Your task to perform on an android device: Go to Google Image 0: 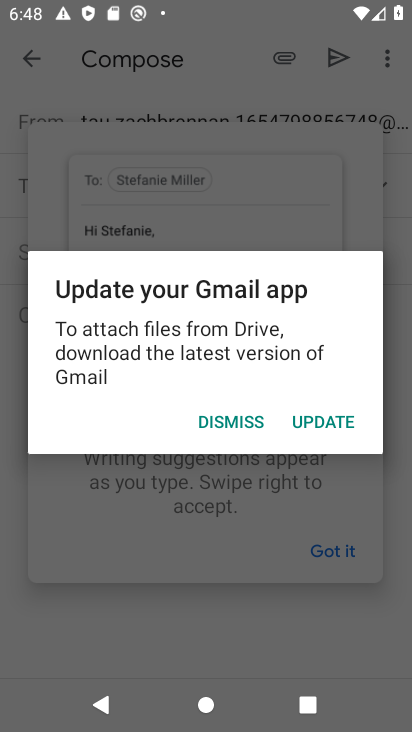
Step 0: press home button
Your task to perform on an android device: Go to Google Image 1: 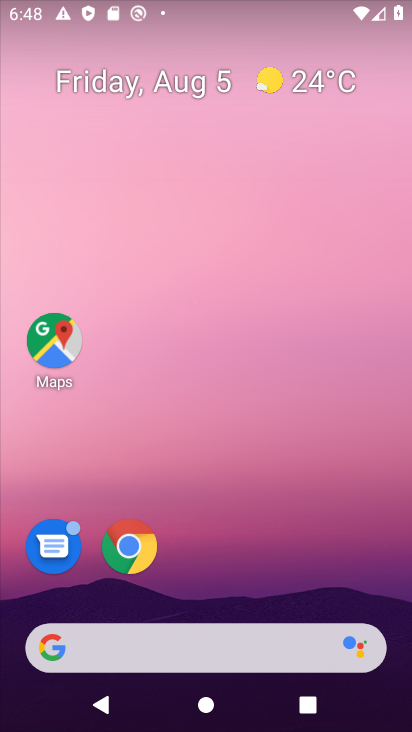
Step 1: drag from (173, 618) to (198, 269)
Your task to perform on an android device: Go to Google Image 2: 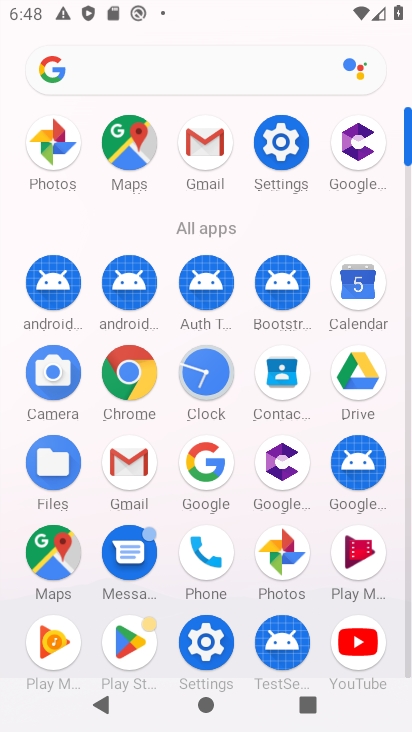
Step 2: click (204, 457)
Your task to perform on an android device: Go to Google Image 3: 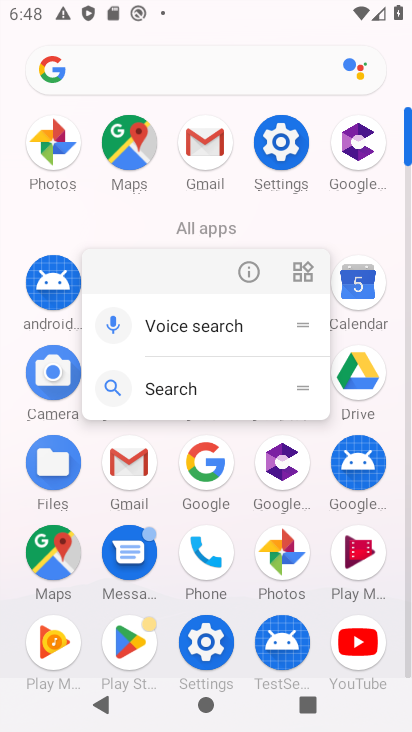
Step 3: click (256, 277)
Your task to perform on an android device: Go to Google Image 4: 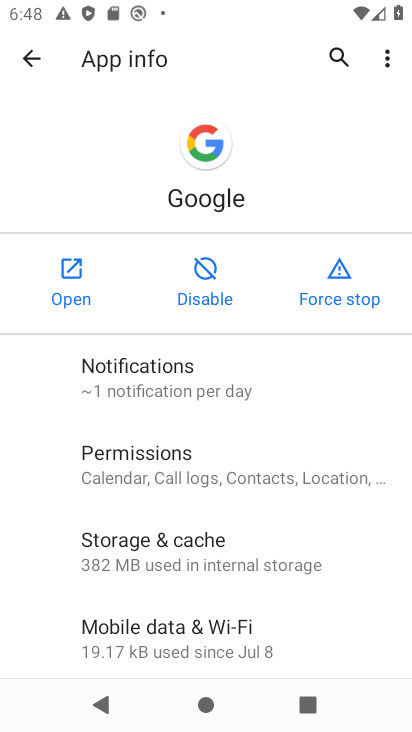
Step 4: click (82, 270)
Your task to perform on an android device: Go to Google Image 5: 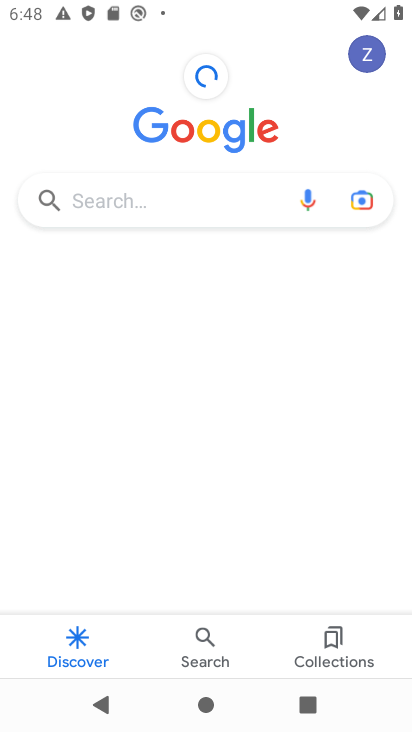
Step 5: task complete